Your task to perform on an android device: Go to Reddit.com Image 0: 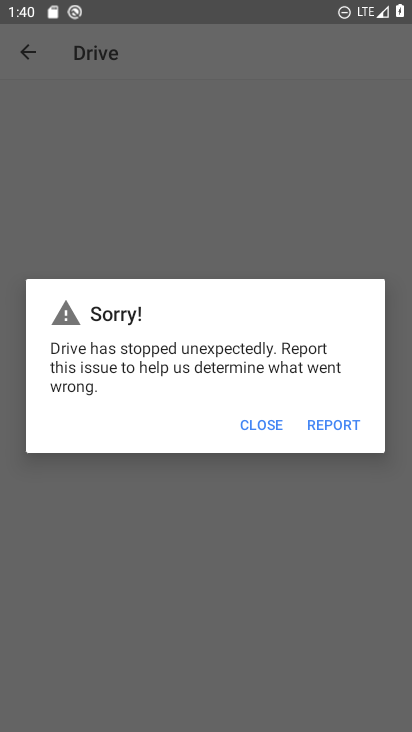
Step 0: press home button
Your task to perform on an android device: Go to Reddit.com Image 1: 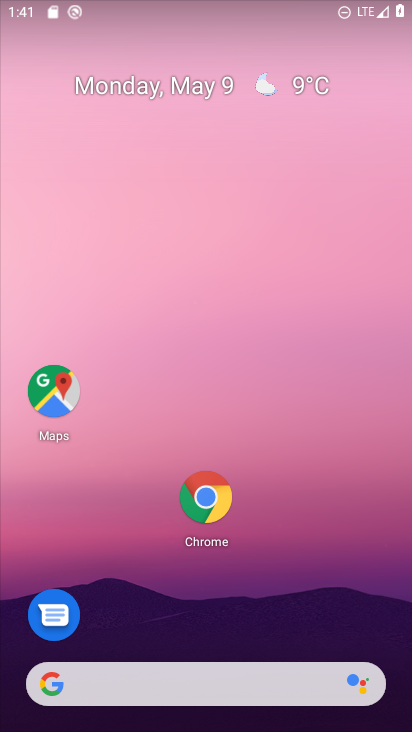
Step 1: click (214, 493)
Your task to perform on an android device: Go to Reddit.com Image 2: 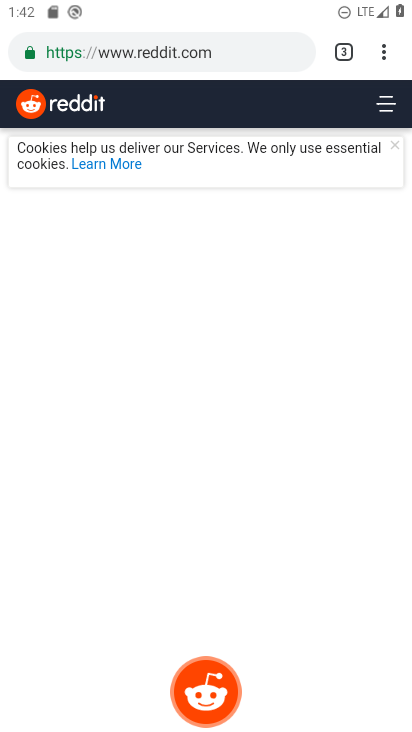
Step 2: task complete